Your task to perform on an android device: turn off smart reply in the gmail app Image 0: 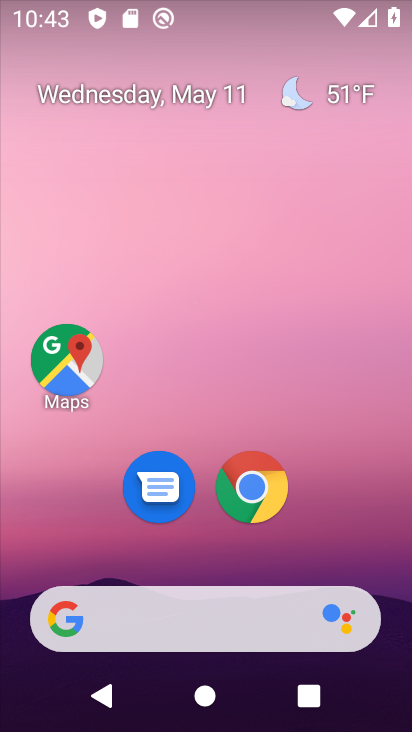
Step 0: drag from (386, 431) to (298, 57)
Your task to perform on an android device: turn off smart reply in the gmail app Image 1: 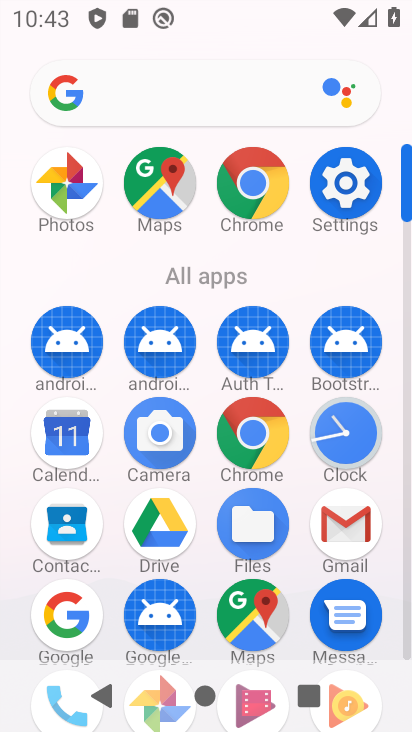
Step 1: click (360, 522)
Your task to perform on an android device: turn off smart reply in the gmail app Image 2: 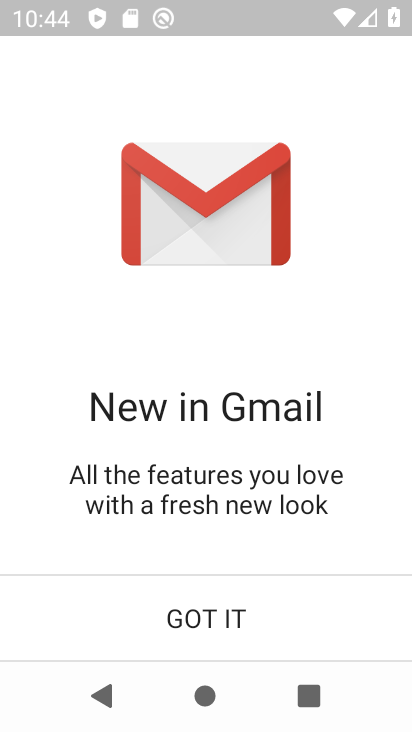
Step 2: click (276, 647)
Your task to perform on an android device: turn off smart reply in the gmail app Image 3: 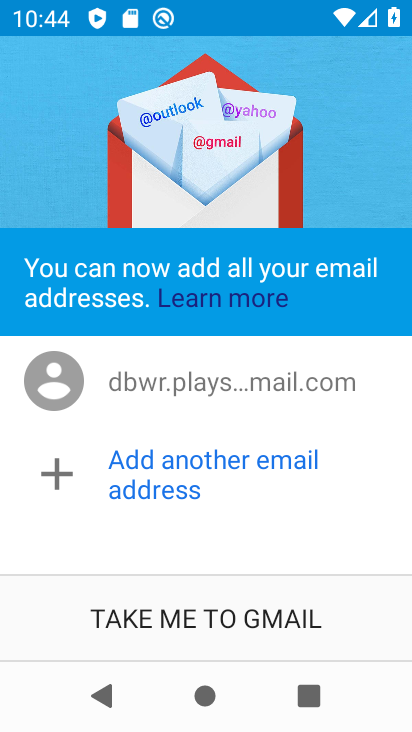
Step 3: click (274, 626)
Your task to perform on an android device: turn off smart reply in the gmail app Image 4: 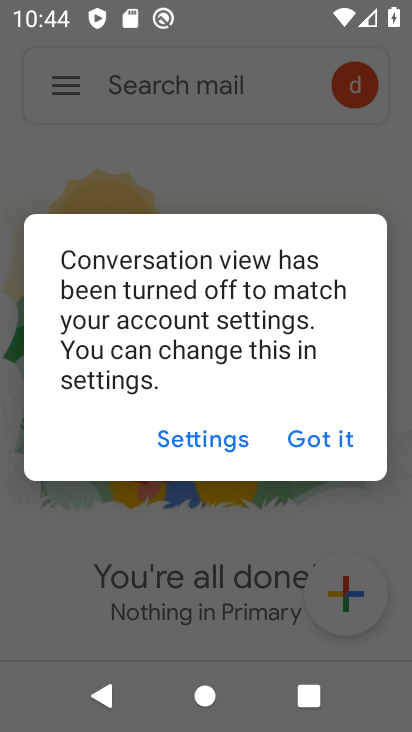
Step 4: click (319, 447)
Your task to perform on an android device: turn off smart reply in the gmail app Image 5: 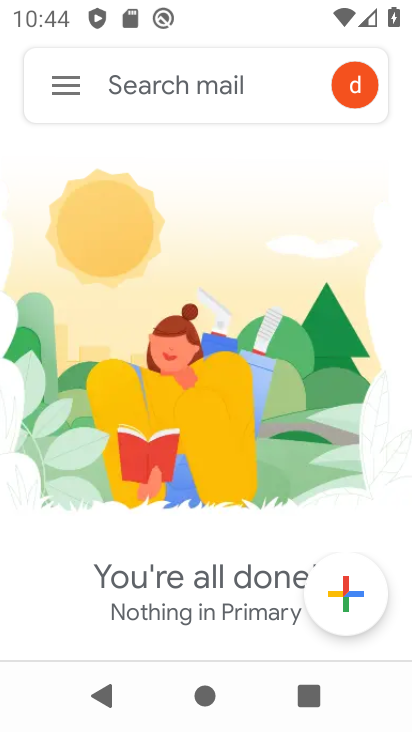
Step 5: click (65, 91)
Your task to perform on an android device: turn off smart reply in the gmail app Image 6: 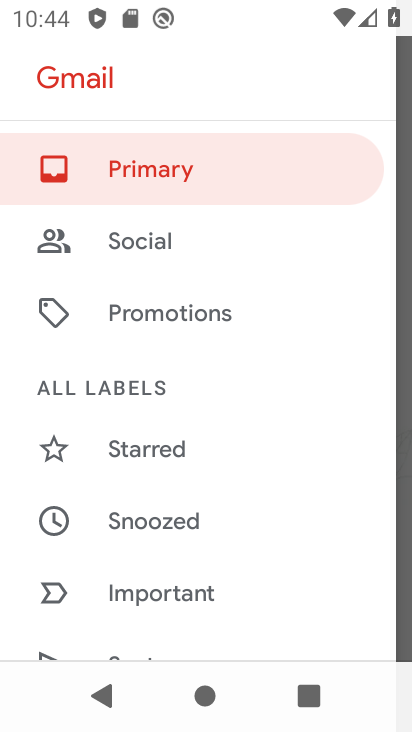
Step 6: drag from (303, 532) to (196, 186)
Your task to perform on an android device: turn off smart reply in the gmail app Image 7: 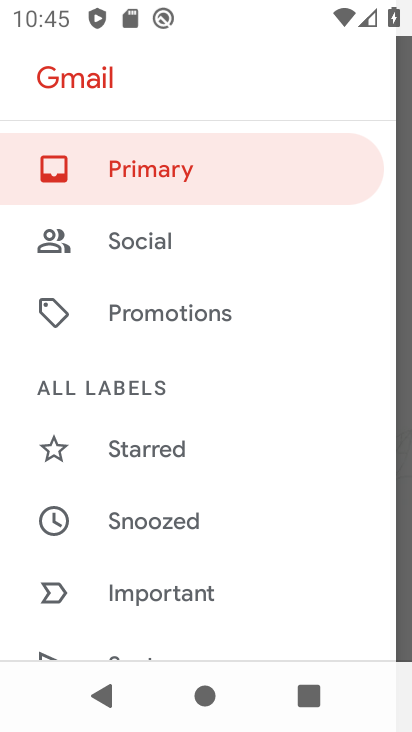
Step 7: drag from (269, 536) to (221, 187)
Your task to perform on an android device: turn off smart reply in the gmail app Image 8: 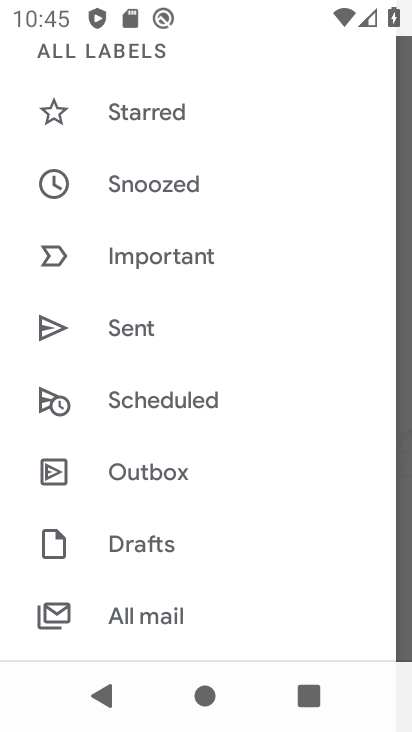
Step 8: drag from (255, 516) to (182, 184)
Your task to perform on an android device: turn off smart reply in the gmail app Image 9: 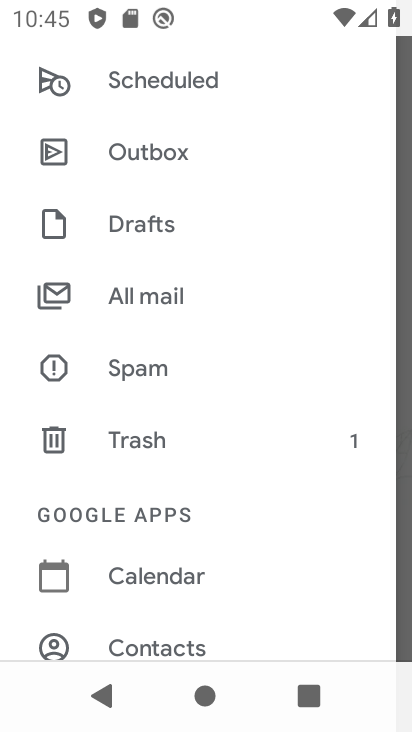
Step 9: drag from (236, 460) to (177, 209)
Your task to perform on an android device: turn off smart reply in the gmail app Image 10: 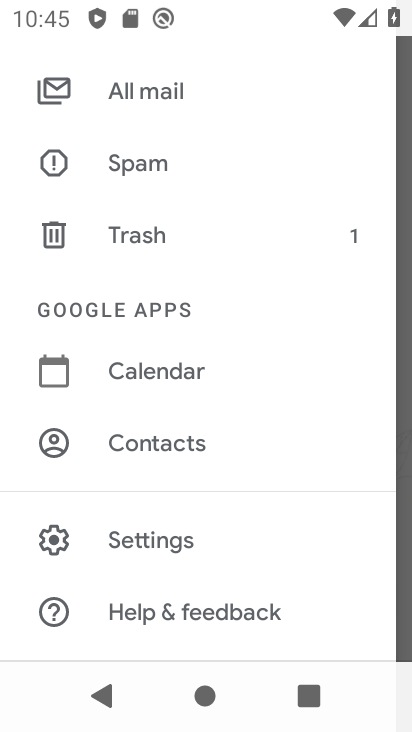
Step 10: click (198, 539)
Your task to perform on an android device: turn off smart reply in the gmail app Image 11: 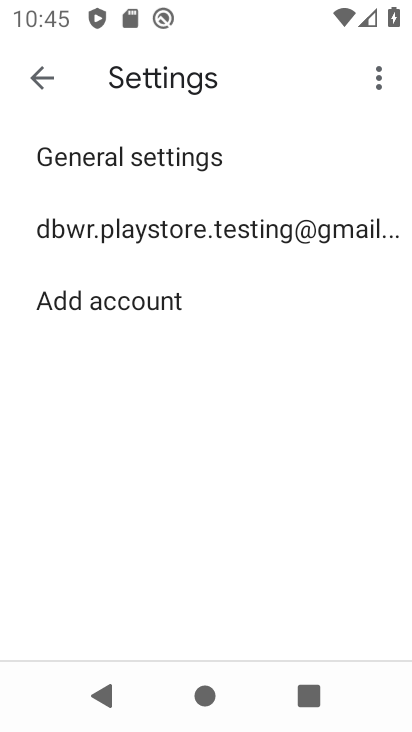
Step 11: click (204, 240)
Your task to perform on an android device: turn off smart reply in the gmail app Image 12: 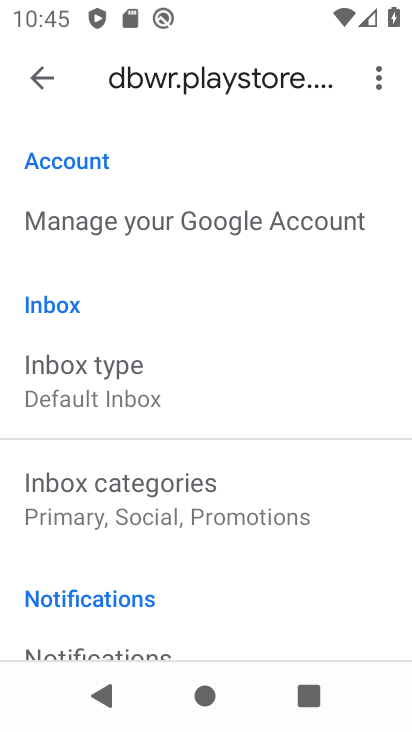
Step 12: drag from (237, 575) to (182, 347)
Your task to perform on an android device: turn off smart reply in the gmail app Image 13: 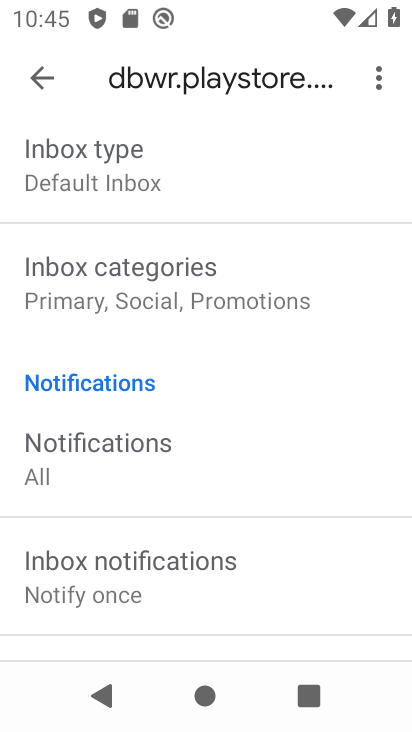
Step 13: drag from (218, 457) to (158, 180)
Your task to perform on an android device: turn off smart reply in the gmail app Image 14: 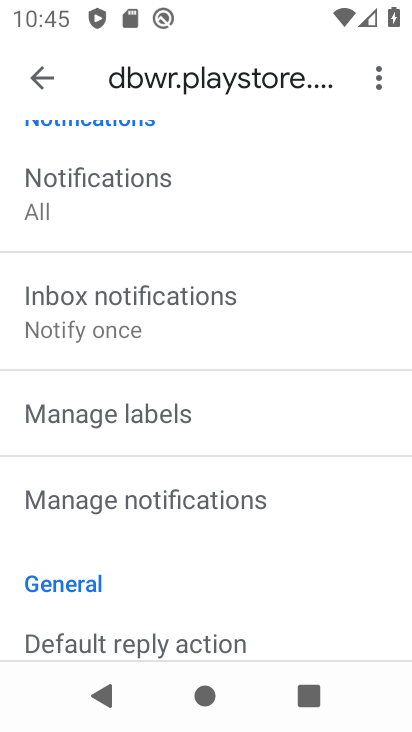
Step 14: drag from (245, 462) to (172, 207)
Your task to perform on an android device: turn off smart reply in the gmail app Image 15: 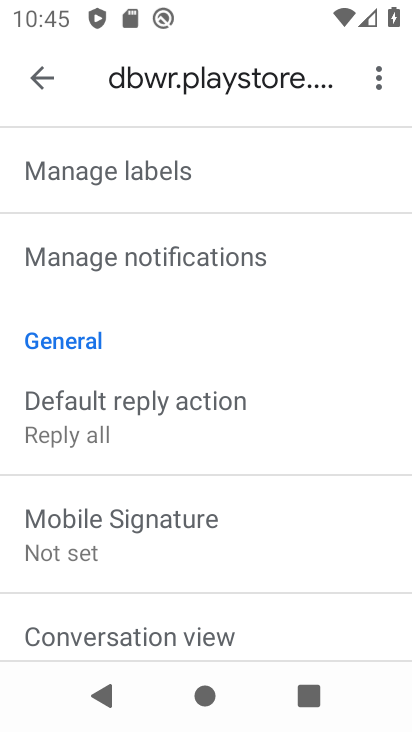
Step 15: drag from (206, 512) to (157, 287)
Your task to perform on an android device: turn off smart reply in the gmail app Image 16: 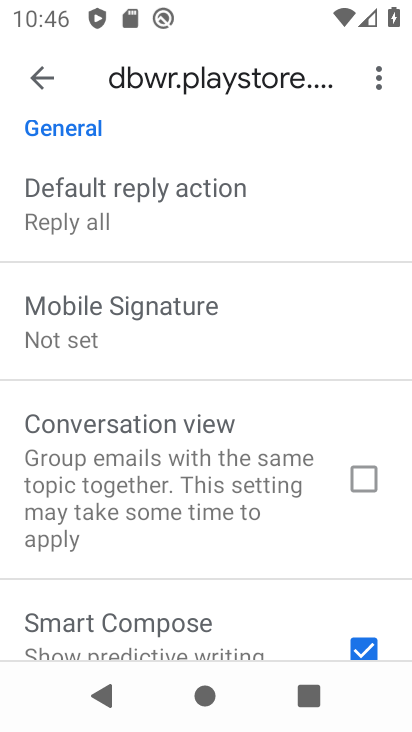
Step 16: drag from (248, 553) to (186, 327)
Your task to perform on an android device: turn off smart reply in the gmail app Image 17: 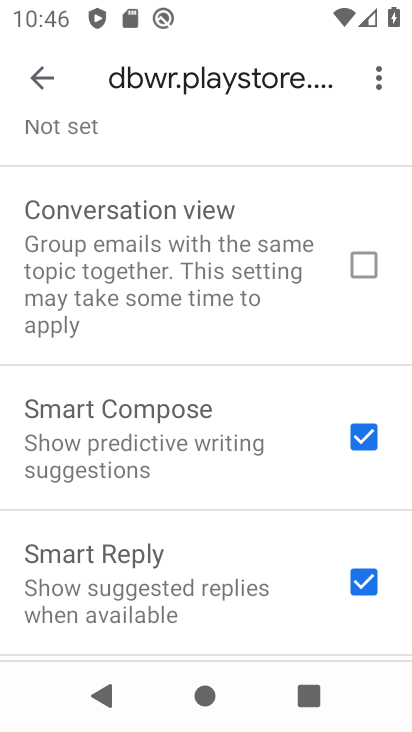
Step 17: click (363, 585)
Your task to perform on an android device: turn off smart reply in the gmail app Image 18: 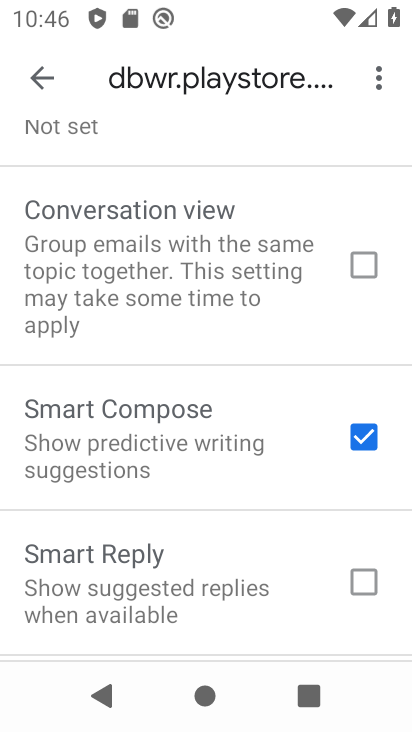
Step 18: task complete